Your task to perform on an android device: clear all cookies in the chrome app Image 0: 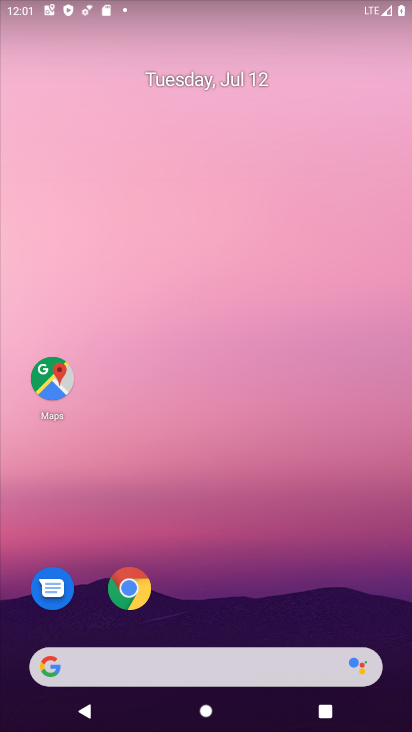
Step 0: click (127, 587)
Your task to perform on an android device: clear all cookies in the chrome app Image 1: 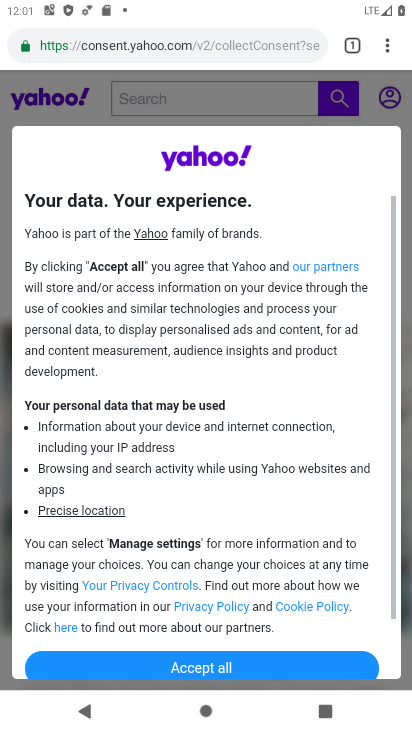
Step 1: drag from (385, 47) to (231, 542)
Your task to perform on an android device: clear all cookies in the chrome app Image 2: 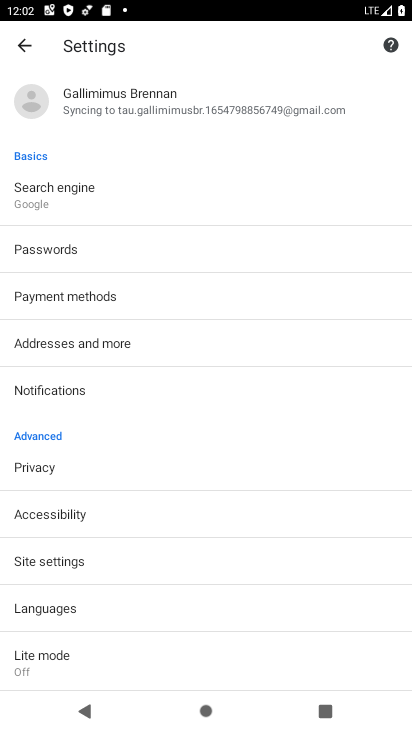
Step 2: click (25, 41)
Your task to perform on an android device: clear all cookies in the chrome app Image 3: 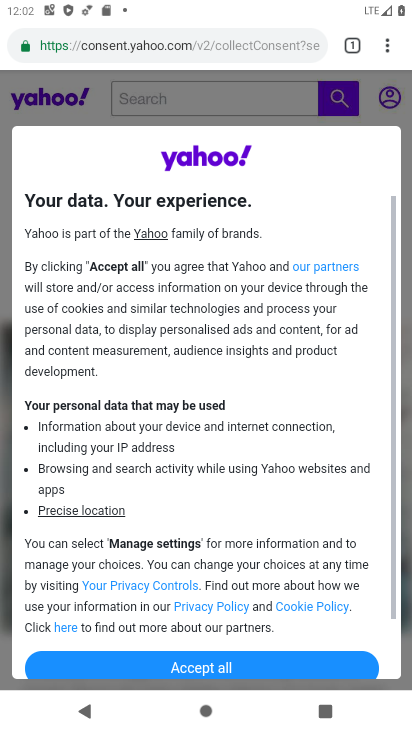
Step 3: drag from (385, 41) to (231, 257)
Your task to perform on an android device: clear all cookies in the chrome app Image 4: 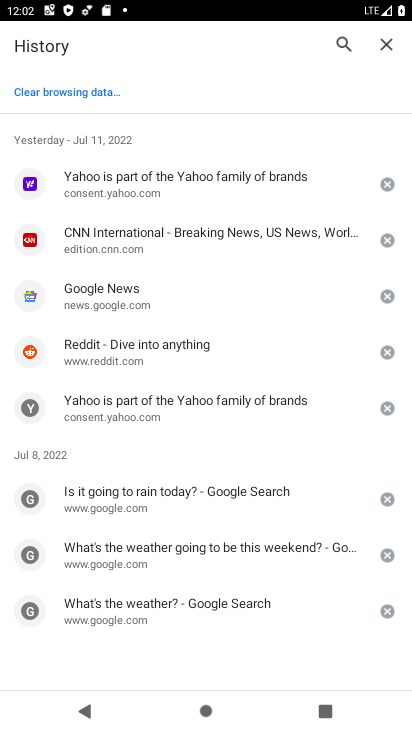
Step 4: click (86, 95)
Your task to perform on an android device: clear all cookies in the chrome app Image 5: 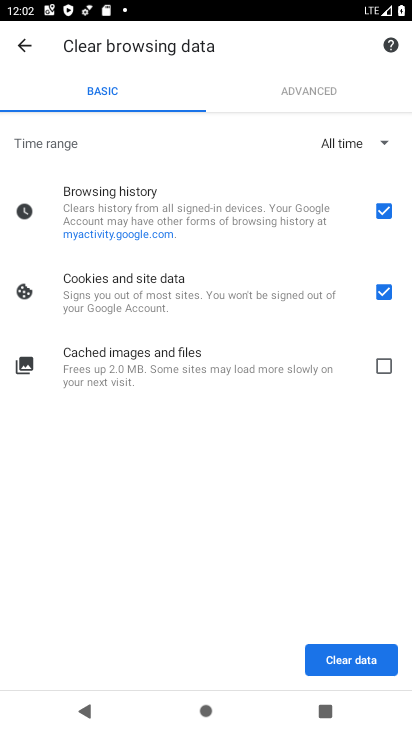
Step 5: click (343, 664)
Your task to perform on an android device: clear all cookies in the chrome app Image 6: 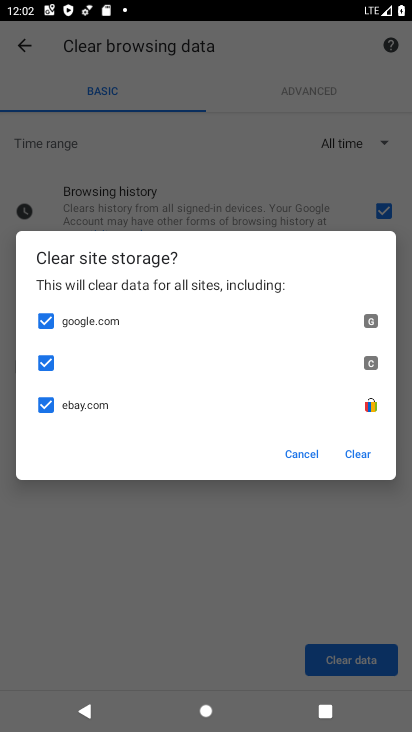
Step 6: click (353, 454)
Your task to perform on an android device: clear all cookies in the chrome app Image 7: 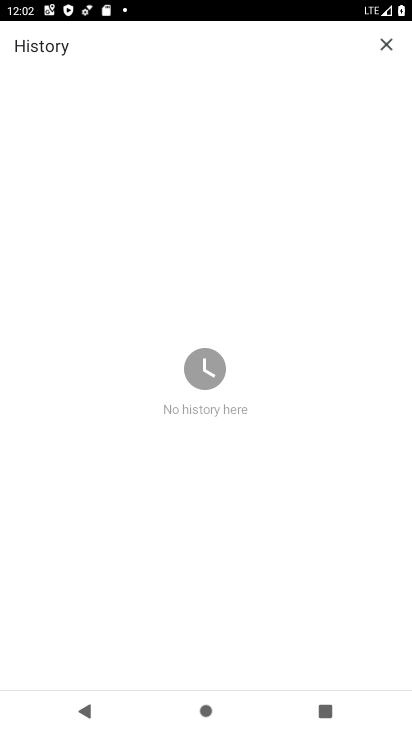
Step 7: task complete